Your task to perform on an android device: Open Amazon Image 0: 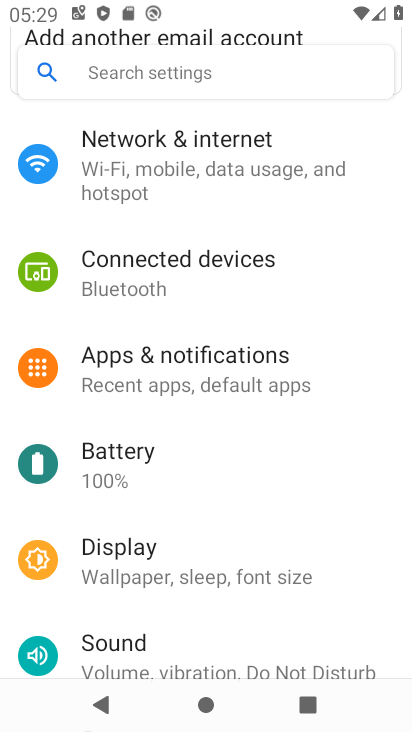
Step 0: press home button
Your task to perform on an android device: Open Amazon Image 1: 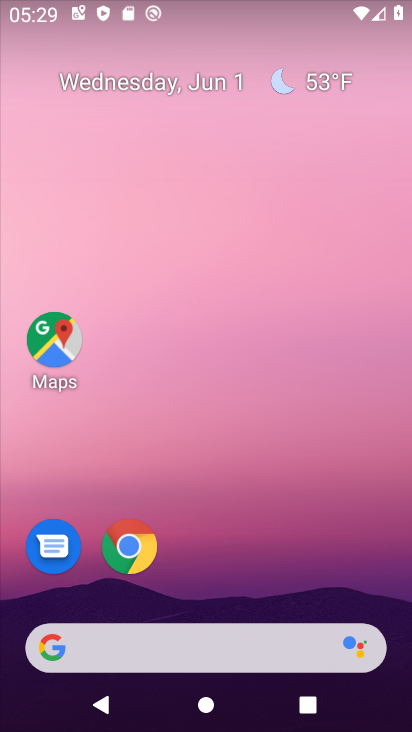
Step 1: click (131, 549)
Your task to perform on an android device: Open Amazon Image 2: 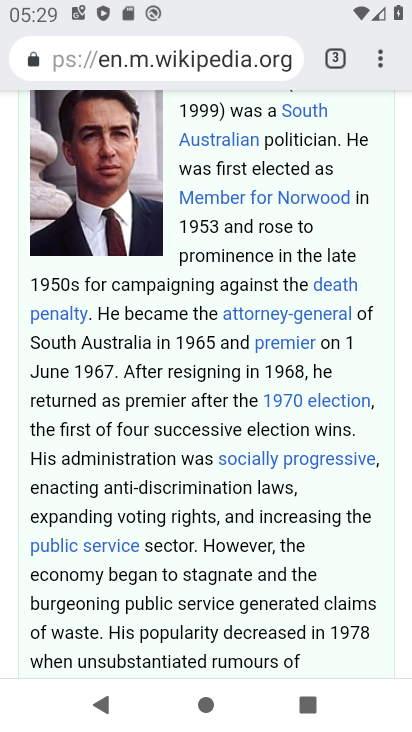
Step 2: drag from (348, 135) to (368, 495)
Your task to perform on an android device: Open Amazon Image 3: 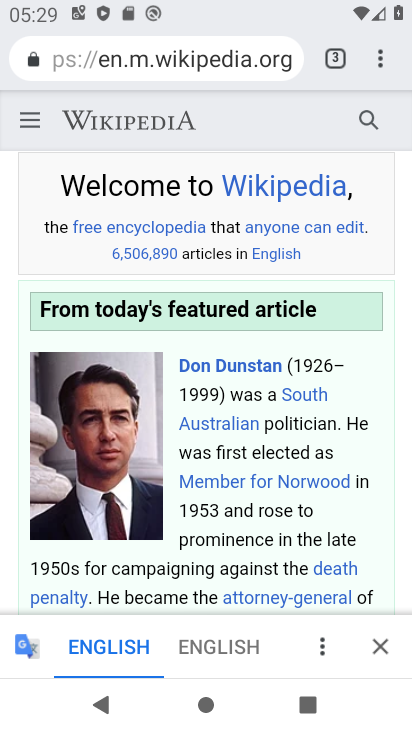
Step 3: click (381, 49)
Your task to perform on an android device: Open Amazon Image 4: 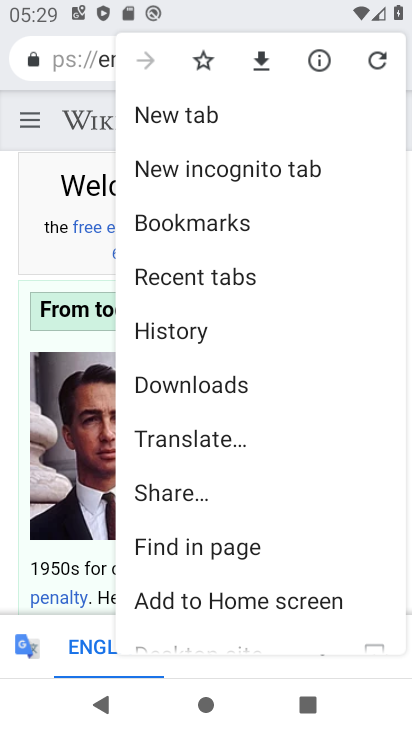
Step 4: click (194, 110)
Your task to perform on an android device: Open Amazon Image 5: 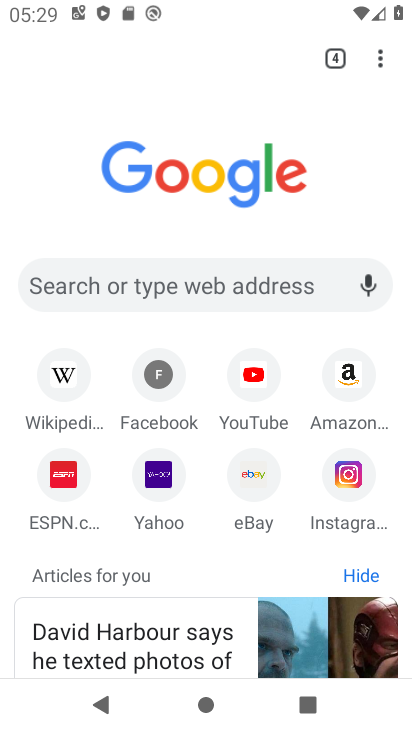
Step 5: click (353, 373)
Your task to perform on an android device: Open Amazon Image 6: 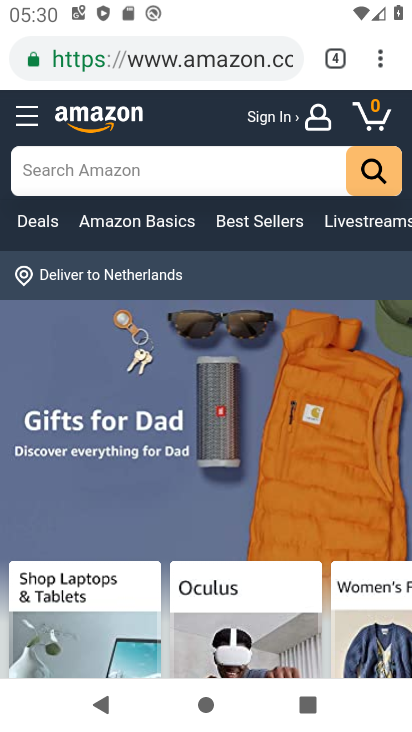
Step 6: task complete